Your task to perform on an android device: Turn on the flashlight Image 0: 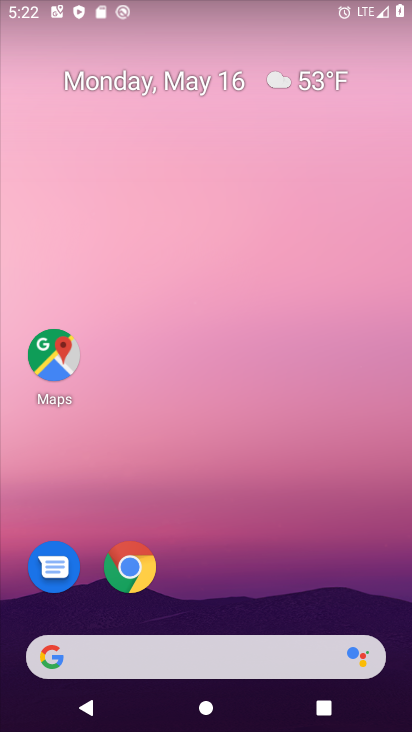
Step 0: drag from (183, 631) to (257, 85)
Your task to perform on an android device: Turn on the flashlight Image 1: 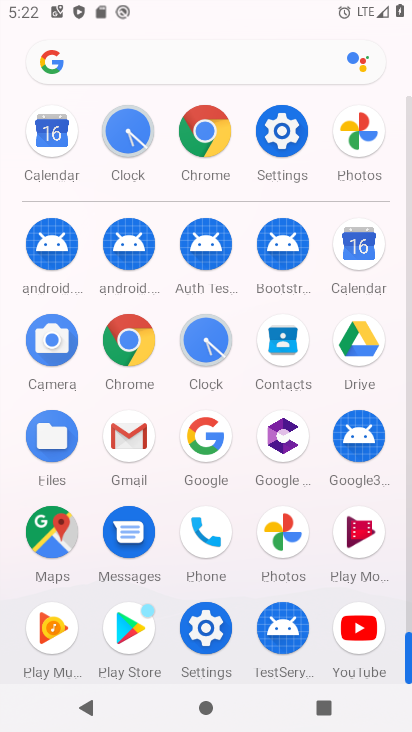
Step 1: click (271, 149)
Your task to perform on an android device: Turn on the flashlight Image 2: 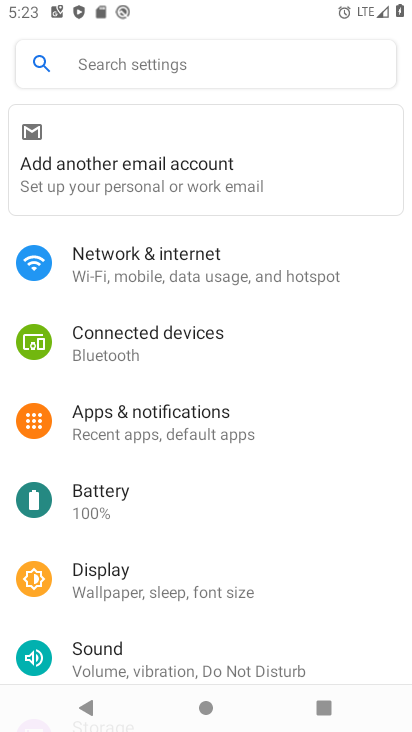
Step 2: task complete